Your task to perform on an android device: open a bookmark in the chrome app Image 0: 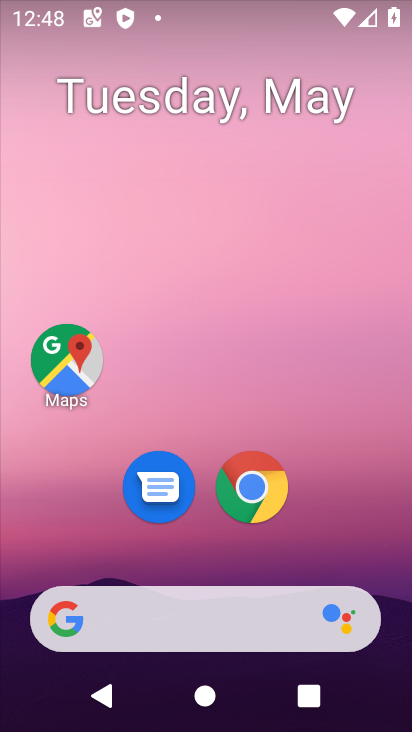
Step 0: click (255, 476)
Your task to perform on an android device: open a bookmark in the chrome app Image 1: 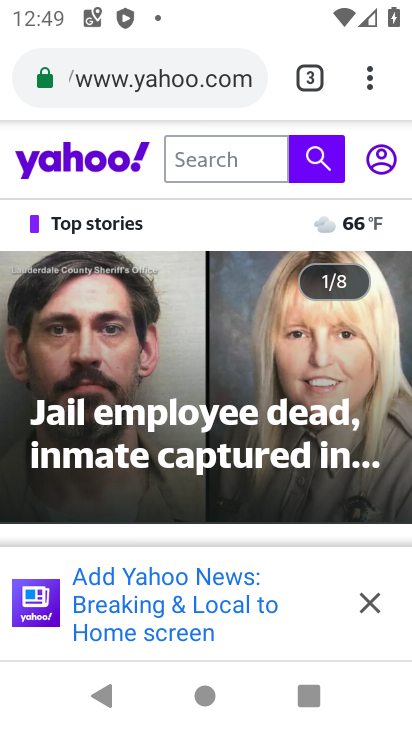
Step 1: click (356, 90)
Your task to perform on an android device: open a bookmark in the chrome app Image 2: 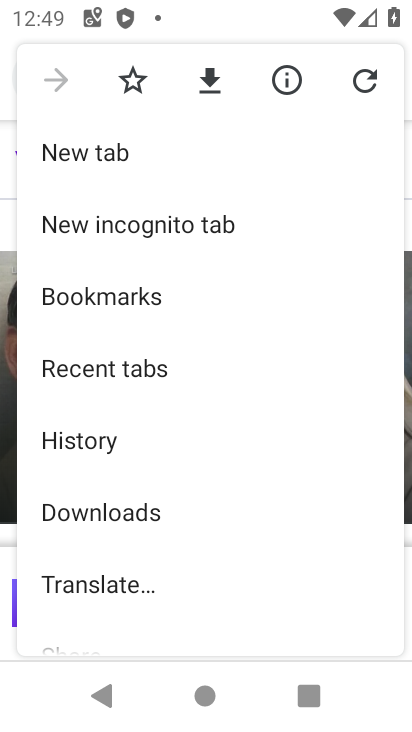
Step 2: click (112, 299)
Your task to perform on an android device: open a bookmark in the chrome app Image 3: 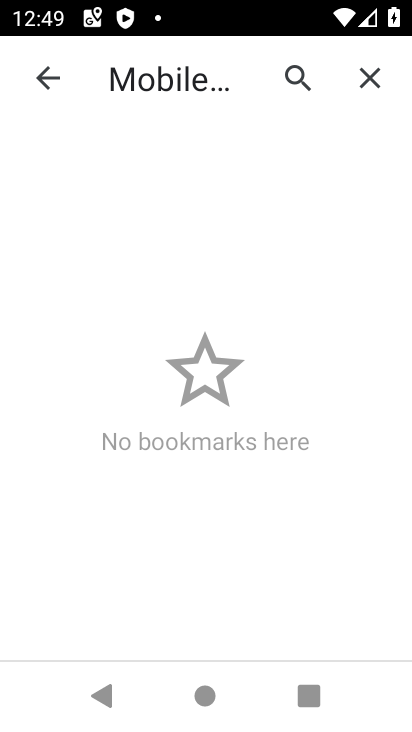
Step 3: task complete